Your task to perform on an android device: turn vacation reply on in the gmail app Image 0: 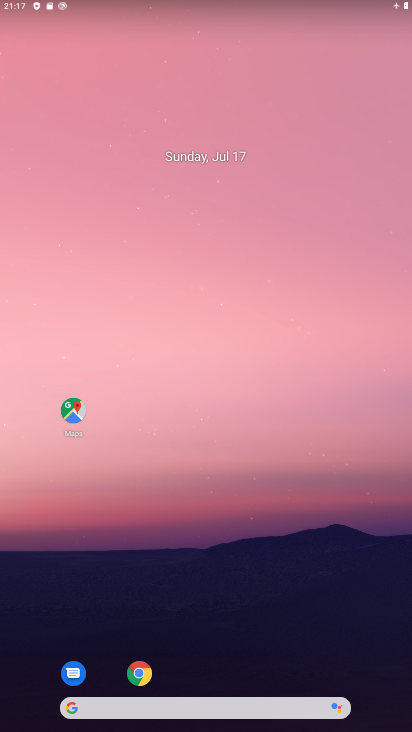
Step 0: drag from (396, 697) to (330, 193)
Your task to perform on an android device: turn vacation reply on in the gmail app Image 1: 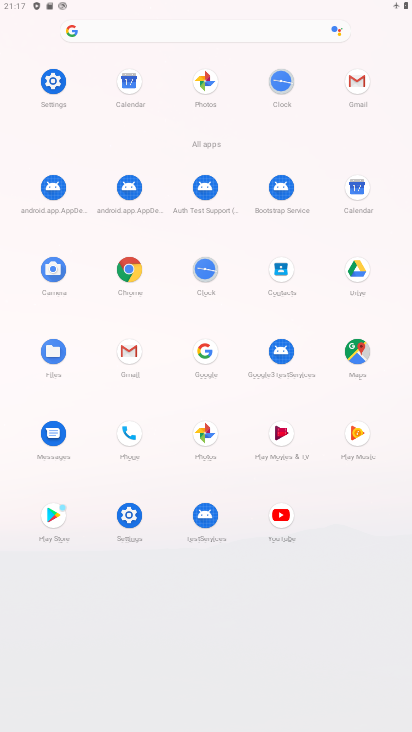
Step 1: click (128, 352)
Your task to perform on an android device: turn vacation reply on in the gmail app Image 2: 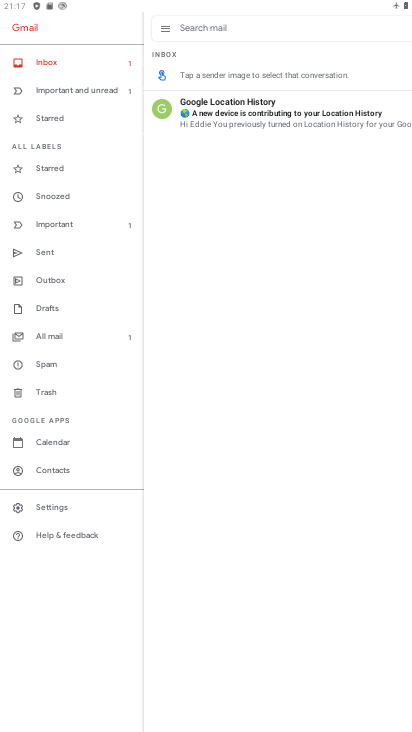
Step 2: click (46, 501)
Your task to perform on an android device: turn vacation reply on in the gmail app Image 3: 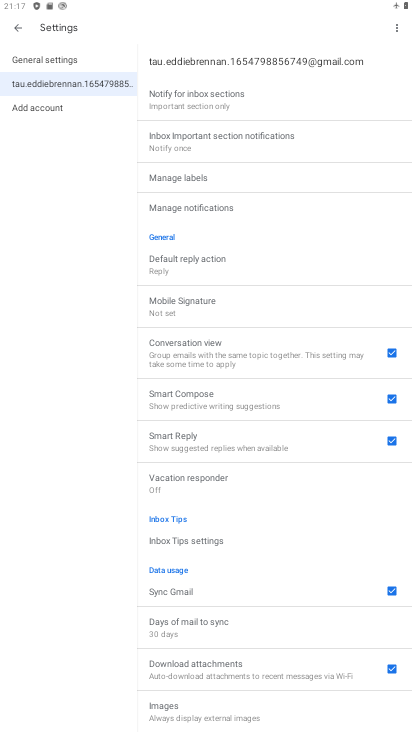
Step 3: drag from (270, 595) to (277, 518)
Your task to perform on an android device: turn vacation reply on in the gmail app Image 4: 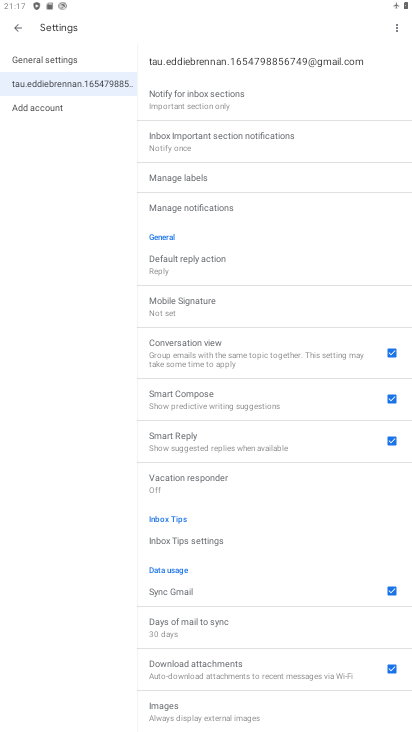
Step 4: click (189, 481)
Your task to perform on an android device: turn vacation reply on in the gmail app Image 5: 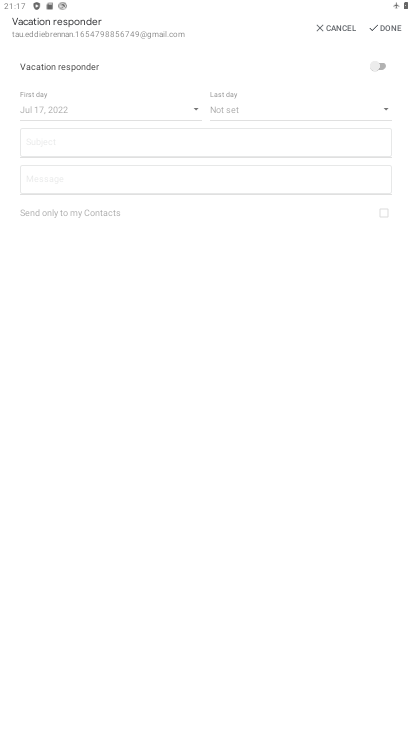
Step 5: click (381, 66)
Your task to perform on an android device: turn vacation reply on in the gmail app Image 6: 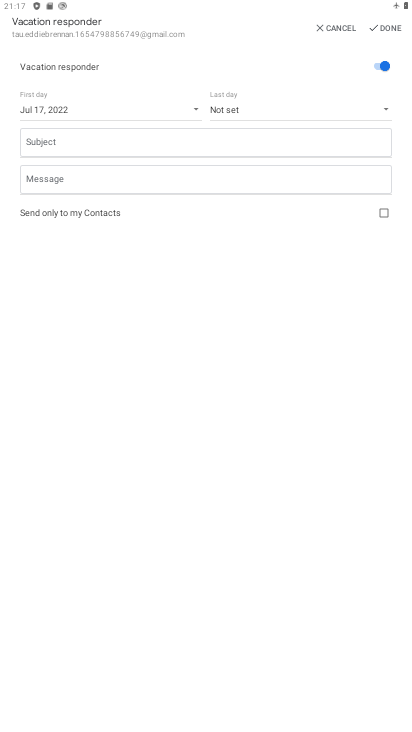
Step 6: click (392, 22)
Your task to perform on an android device: turn vacation reply on in the gmail app Image 7: 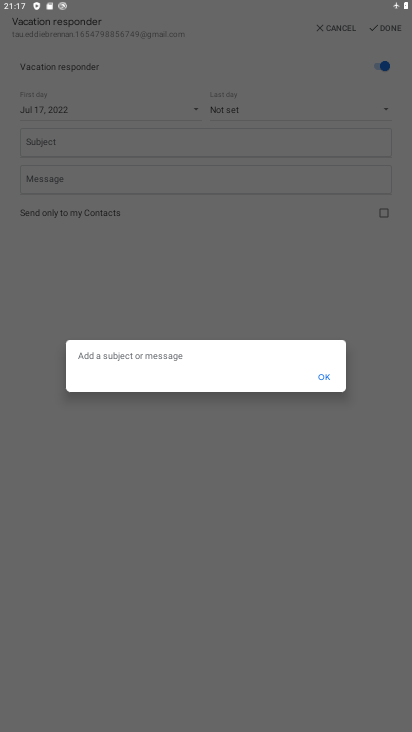
Step 7: click (323, 376)
Your task to perform on an android device: turn vacation reply on in the gmail app Image 8: 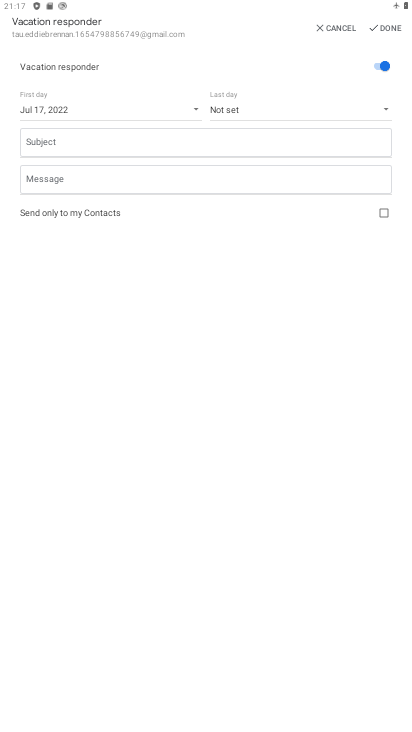
Step 8: task complete